Your task to perform on an android device: turn off javascript in the chrome app Image 0: 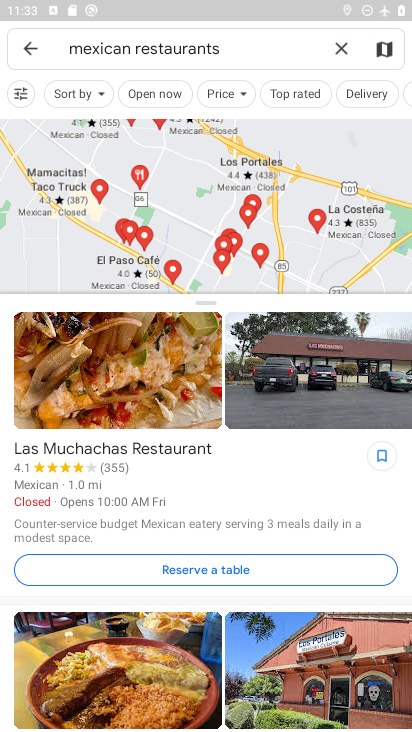
Step 0: press home button
Your task to perform on an android device: turn off javascript in the chrome app Image 1: 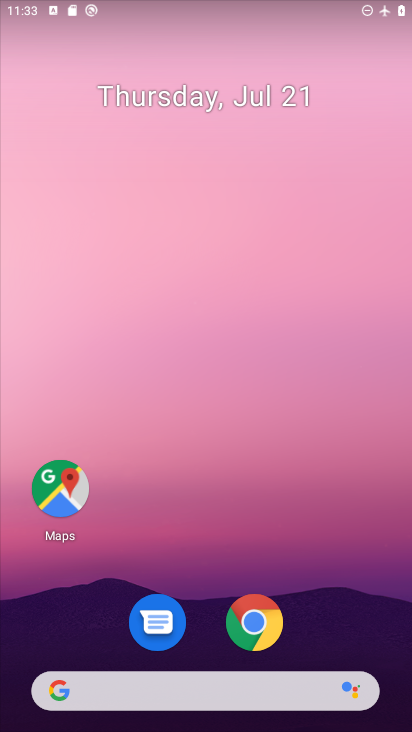
Step 1: click (248, 613)
Your task to perform on an android device: turn off javascript in the chrome app Image 2: 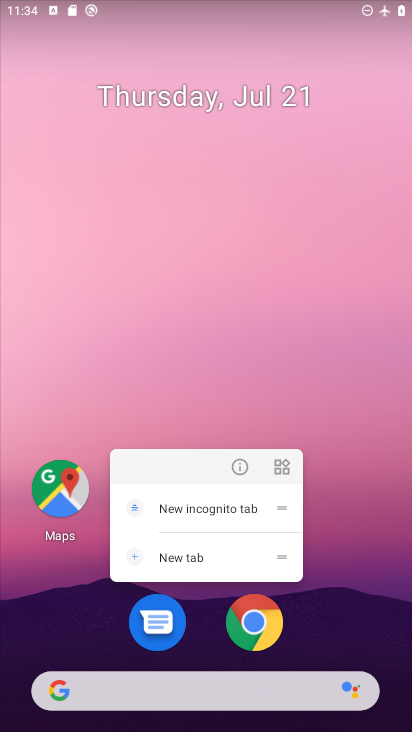
Step 2: click (242, 605)
Your task to perform on an android device: turn off javascript in the chrome app Image 3: 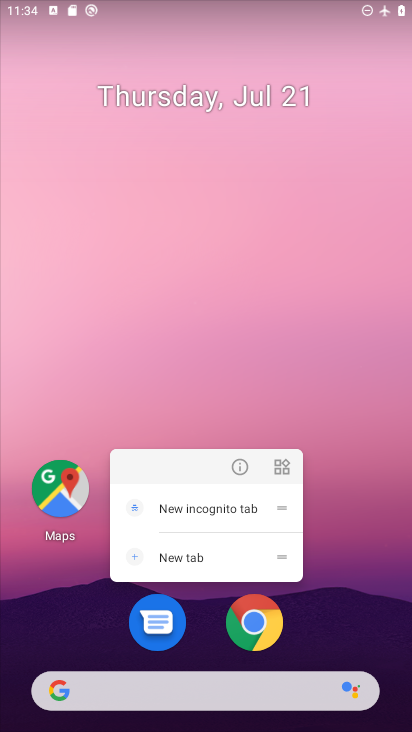
Step 3: click (260, 631)
Your task to perform on an android device: turn off javascript in the chrome app Image 4: 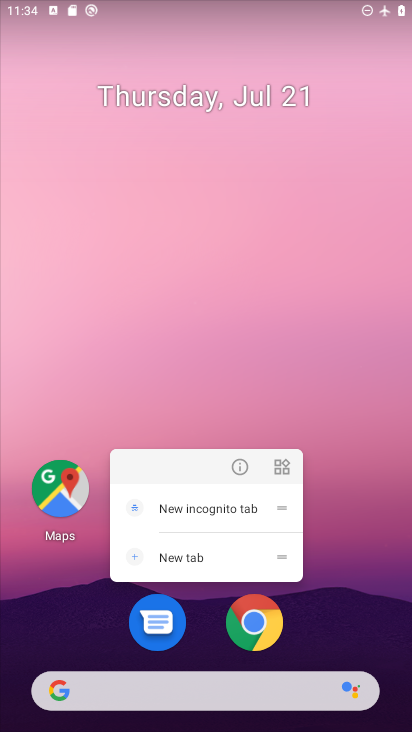
Step 4: click (260, 631)
Your task to perform on an android device: turn off javascript in the chrome app Image 5: 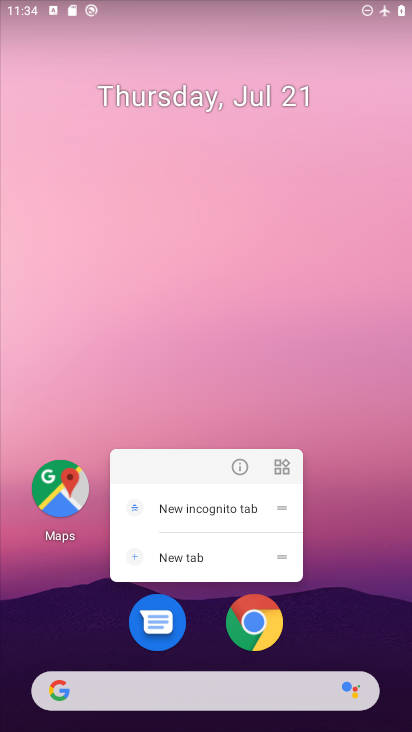
Step 5: click (260, 631)
Your task to perform on an android device: turn off javascript in the chrome app Image 6: 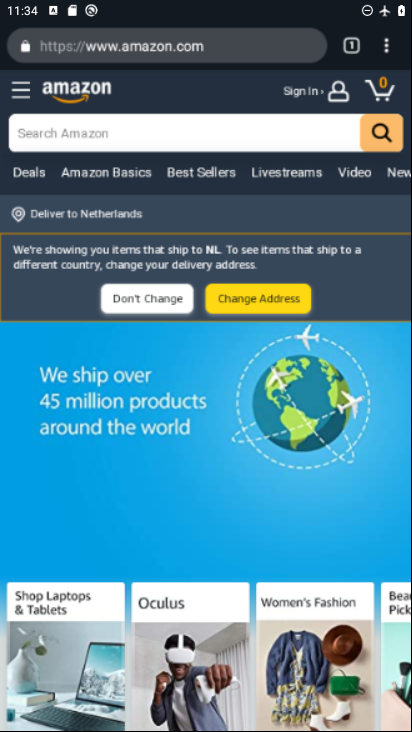
Step 6: click (260, 631)
Your task to perform on an android device: turn off javascript in the chrome app Image 7: 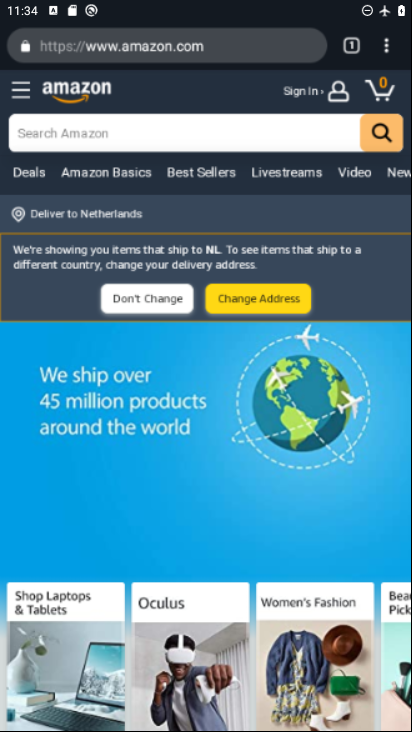
Step 7: click (260, 631)
Your task to perform on an android device: turn off javascript in the chrome app Image 8: 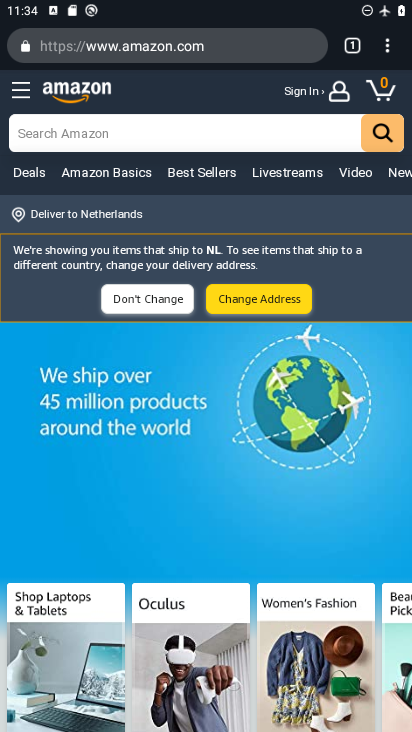
Step 8: click (383, 48)
Your task to perform on an android device: turn off javascript in the chrome app Image 9: 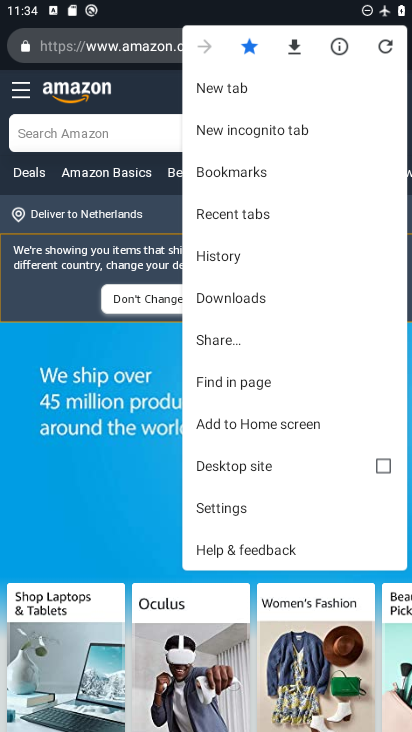
Step 9: click (251, 504)
Your task to perform on an android device: turn off javascript in the chrome app Image 10: 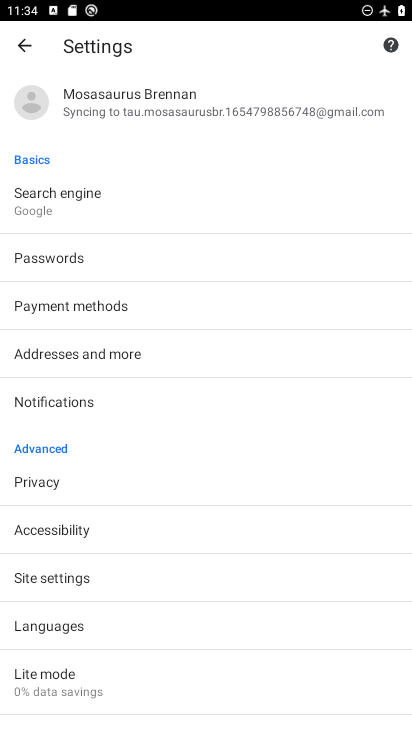
Step 10: click (84, 577)
Your task to perform on an android device: turn off javascript in the chrome app Image 11: 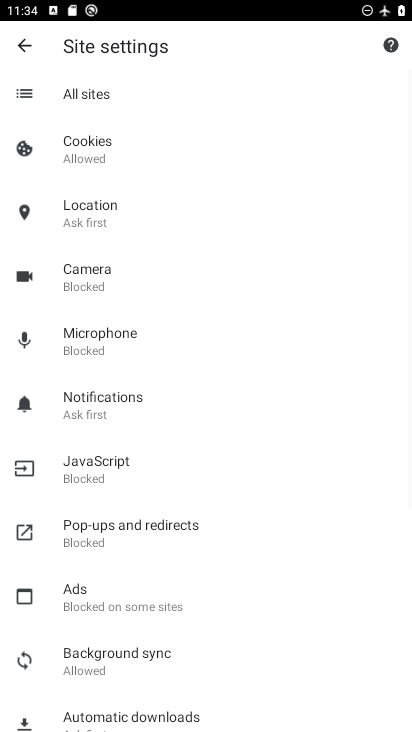
Step 11: click (106, 466)
Your task to perform on an android device: turn off javascript in the chrome app Image 12: 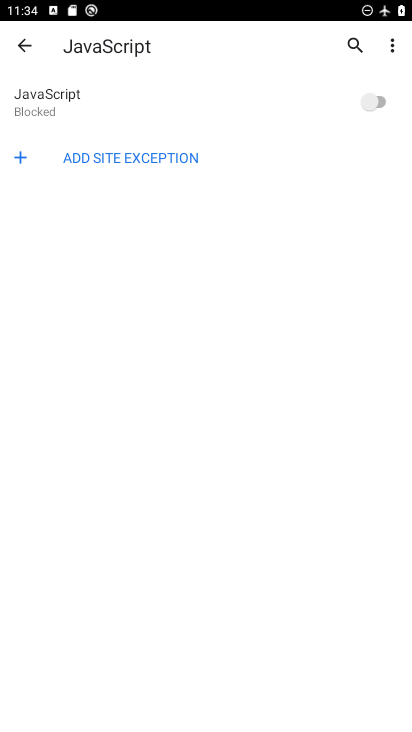
Step 12: task complete